Your task to perform on an android device: Open the Play Movies app and select the watchlist tab. Image 0: 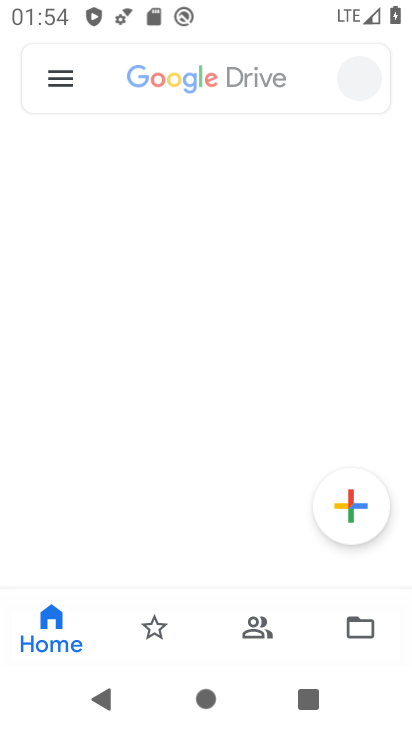
Step 0: click (60, 365)
Your task to perform on an android device: Open the Play Movies app and select the watchlist tab. Image 1: 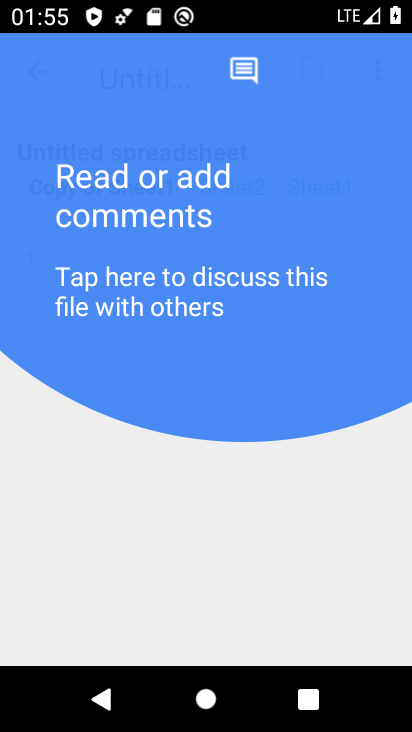
Step 1: press home button
Your task to perform on an android device: Open the Play Movies app and select the watchlist tab. Image 2: 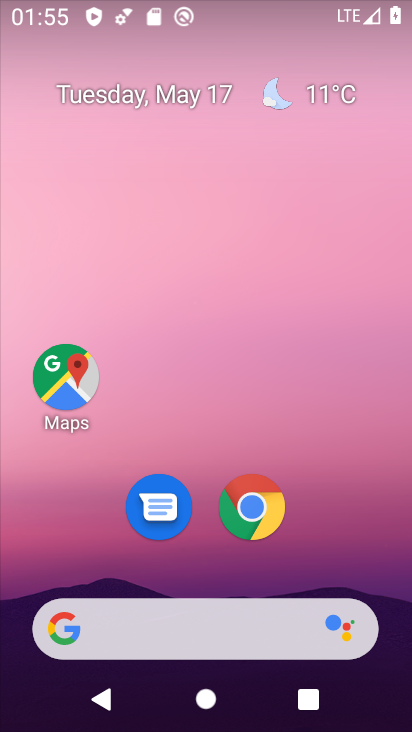
Step 2: drag from (212, 572) to (247, 121)
Your task to perform on an android device: Open the Play Movies app and select the watchlist tab. Image 3: 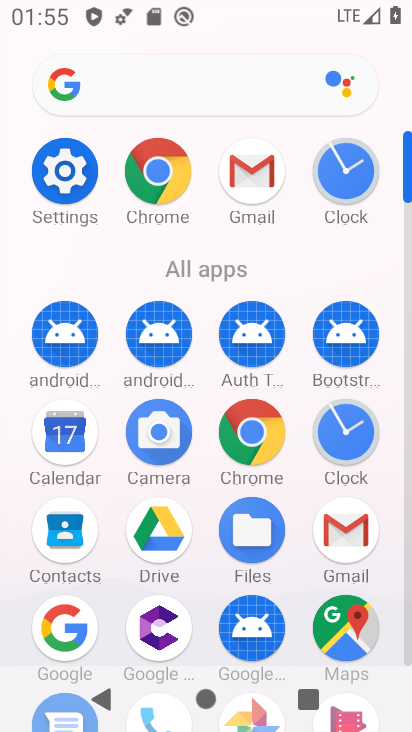
Step 3: drag from (299, 640) to (299, 185)
Your task to perform on an android device: Open the Play Movies app and select the watchlist tab. Image 4: 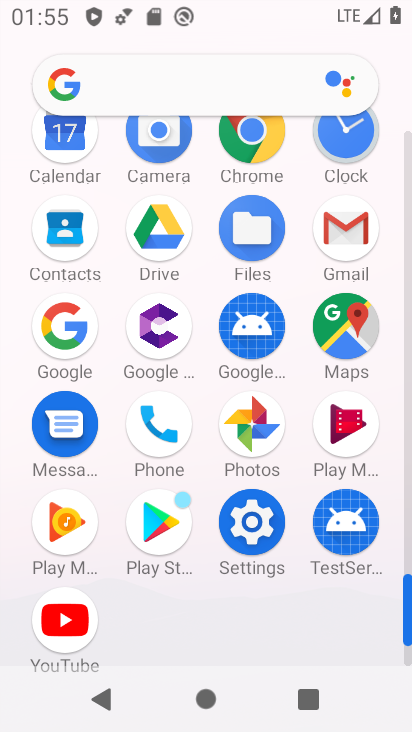
Step 4: click (345, 438)
Your task to perform on an android device: Open the Play Movies app and select the watchlist tab. Image 5: 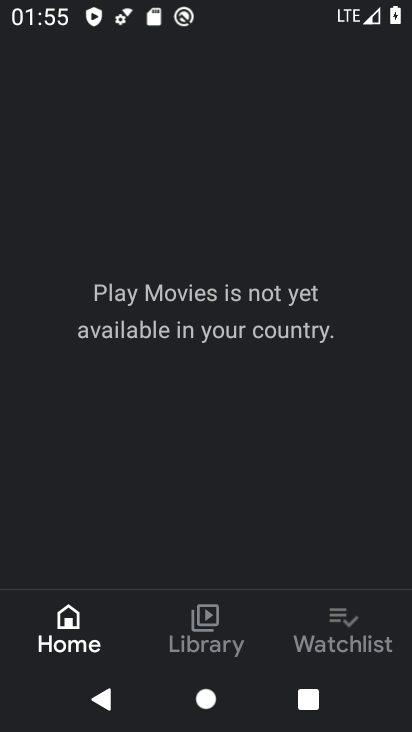
Step 5: click (361, 619)
Your task to perform on an android device: Open the Play Movies app and select the watchlist tab. Image 6: 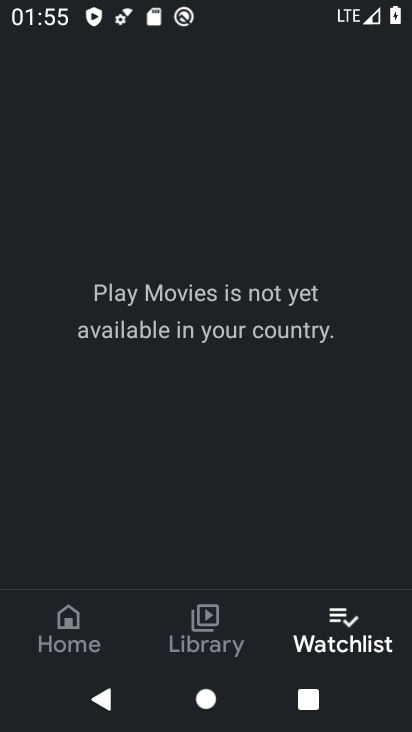
Step 6: click (361, 619)
Your task to perform on an android device: Open the Play Movies app and select the watchlist tab. Image 7: 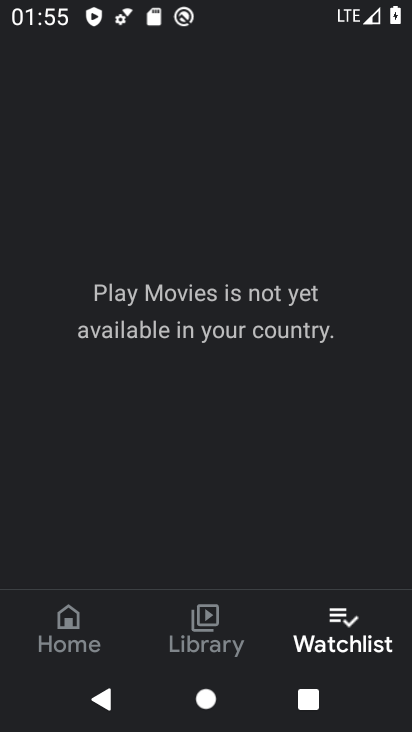
Step 7: task complete